Your task to perform on an android device: Open sound settings Image 0: 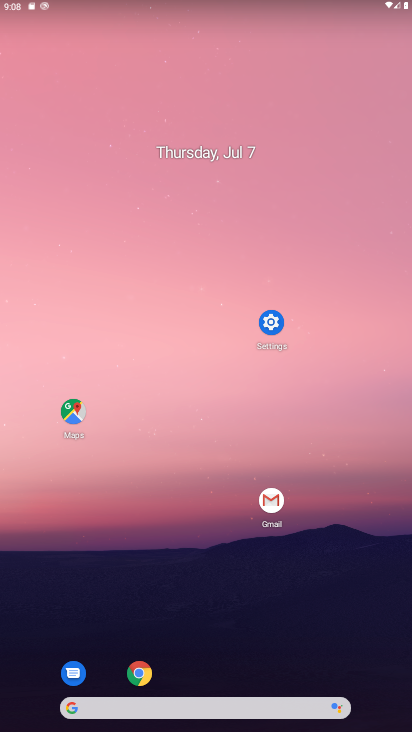
Step 0: click (263, 316)
Your task to perform on an android device: Open sound settings Image 1: 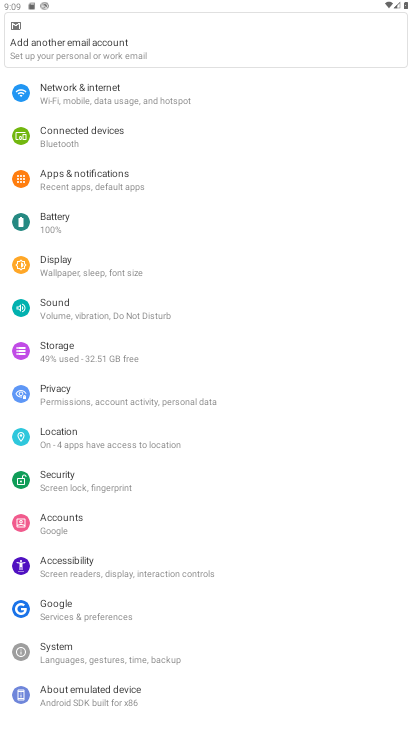
Step 1: click (83, 313)
Your task to perform on an android device: Open sound settings Image 2: 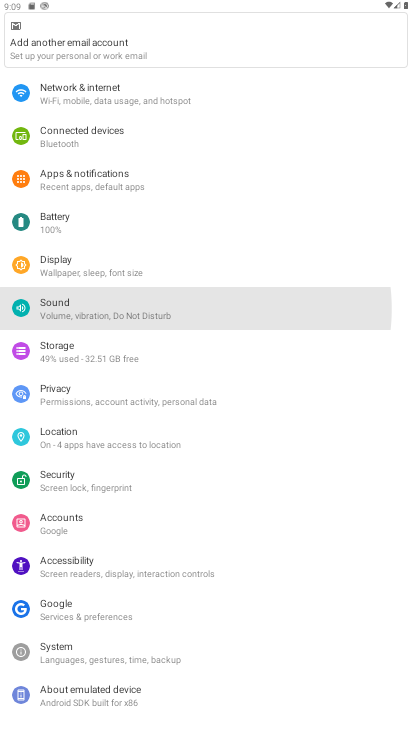
Step 2: click (67, 306)
Your task to perform on an android device: Open sound settings Image 3: 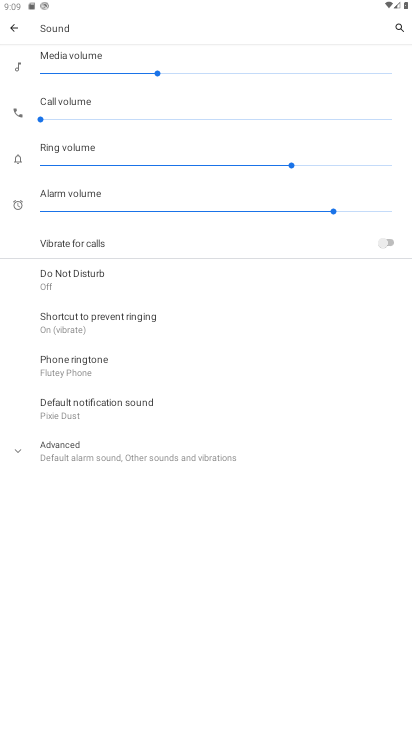
Step 3: click (33, 448)
Your task to perform on an android device: Open sound settings Image 4: 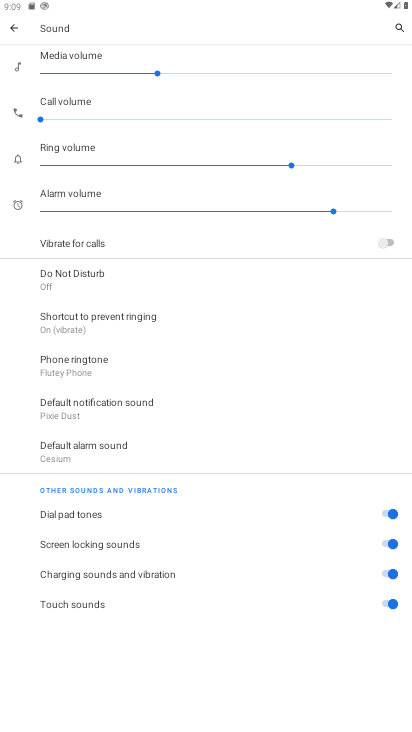
Step 4: task complete